Your task to perform on an android device: turn off location history Image 0: 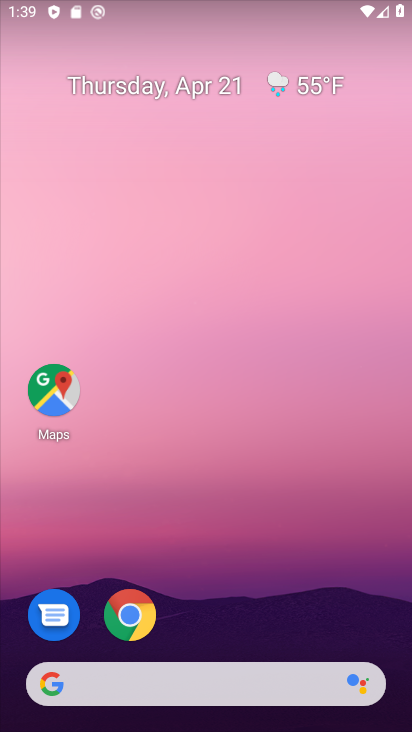
Step 0: click (241, 332)
Your task to perform on an android device: turn off location history Image 1: 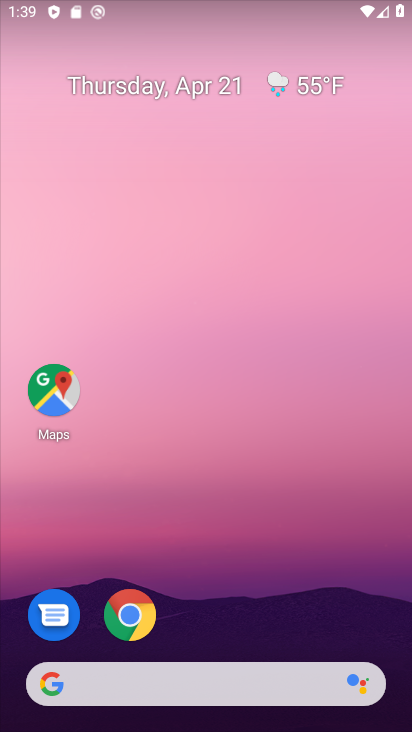
Step 1: drag from (235, 580) to (237, 312)
Your task to perform on an android device: turn off location history Image 2: 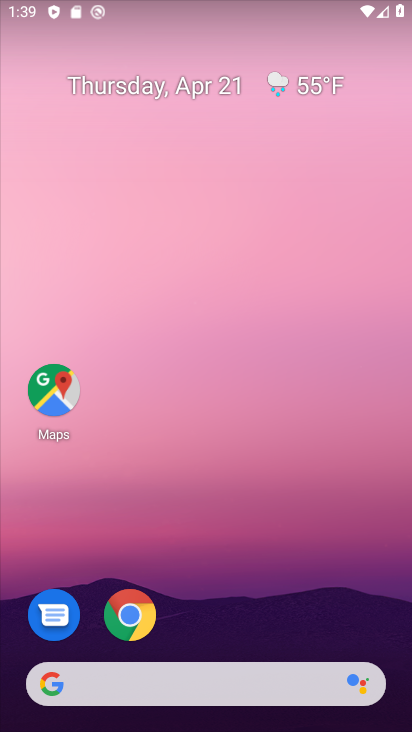
Step 2: drag from (182, 658) to (189, 314)
Your task to perform on an android device: turn off location history Image 3: 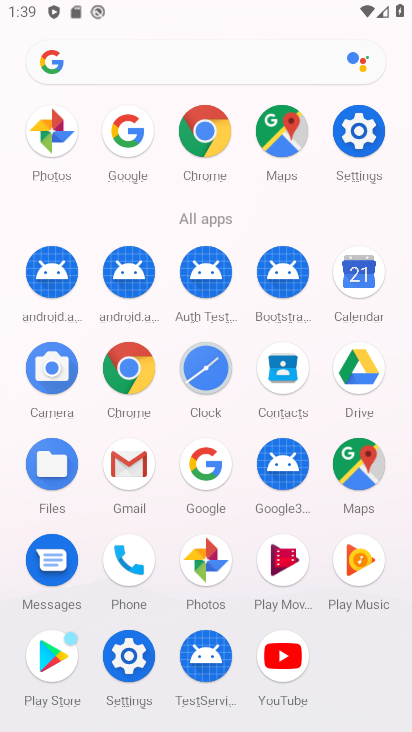
Step 3: click (357, 145)
Your task to perform on an android device: turn off location history Image 4: 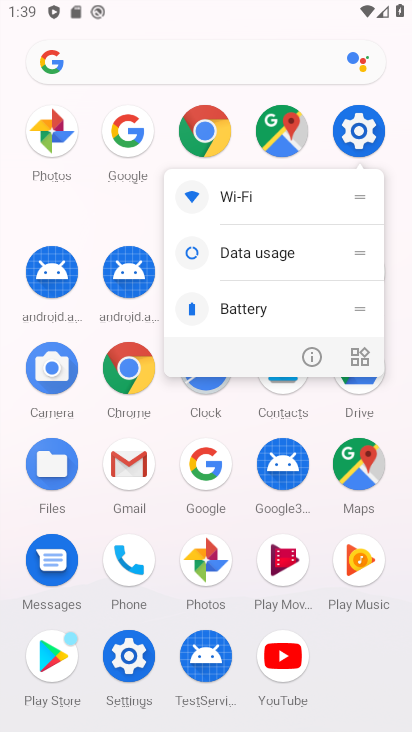
Step 4: click (362, 137)
Your task to perform on an android device: turn off location history Image 5: 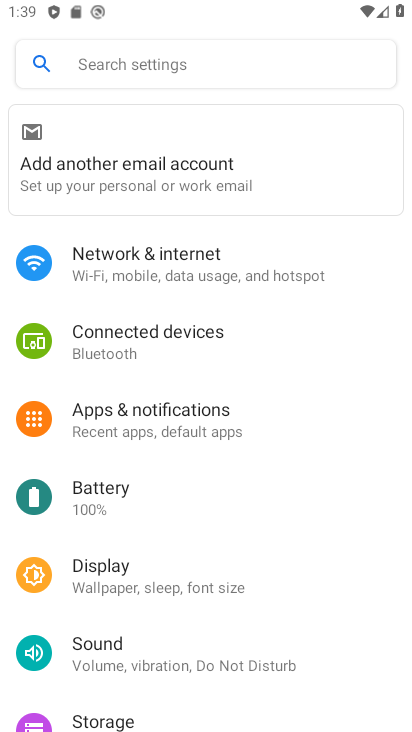
Step 5: drag from (143, 680) to (177, 303)
Your task to perform on an android device: turn off location history Image 6: 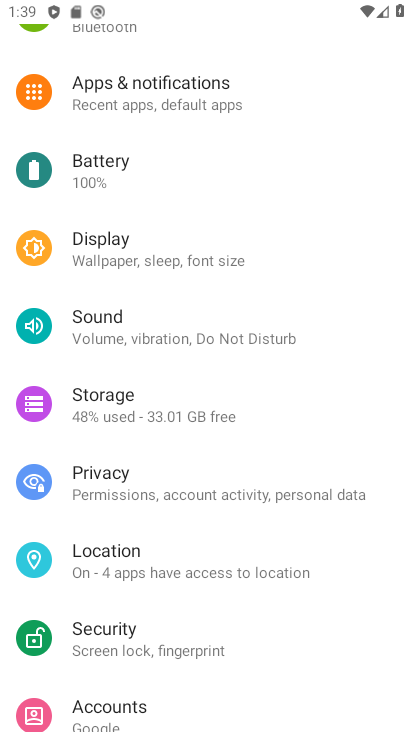
Step 6: click (155, 568)
Your task to perform on an android device: turn off location history Image 7: 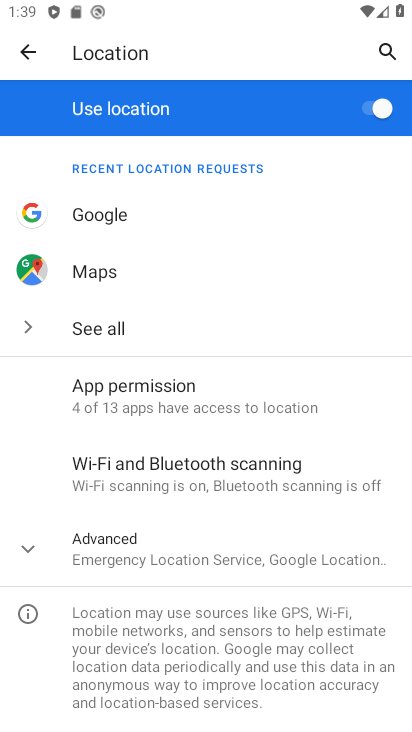
Step 7: click (124, 540)
Your task to perform on an android device: turn off location history Image 8: 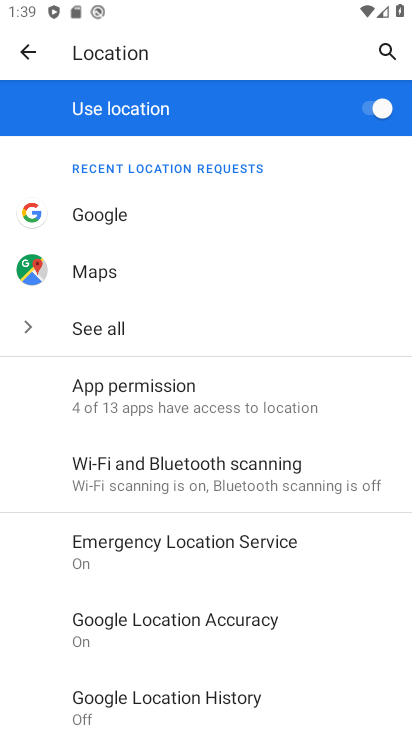
Step 8: click (197, 705)
Your task to perform on an android device: turn off location history Image 9: 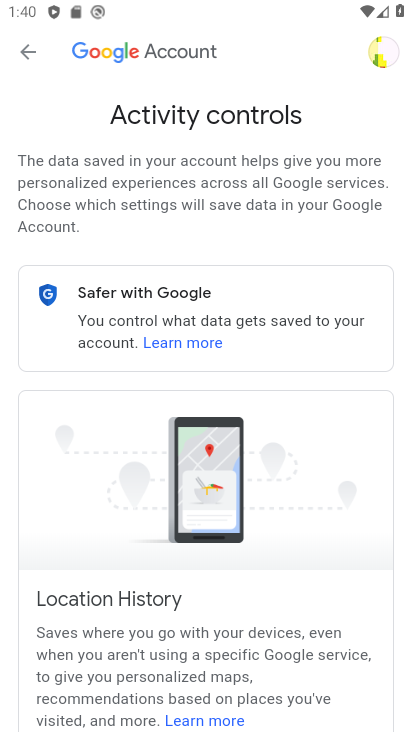
Step 9: drag from (210, 702) to (254, 335)
Your task to perform on an android device: turn off location history Image 10: 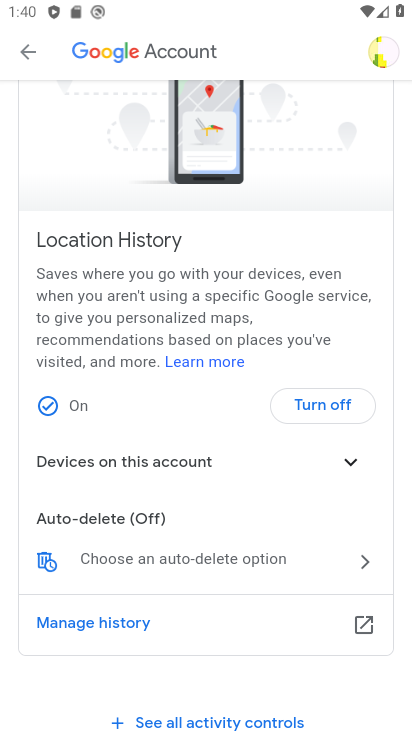
Step 10: click (311, 406)
Your task to perform on an android device: turn off location history Image 11: 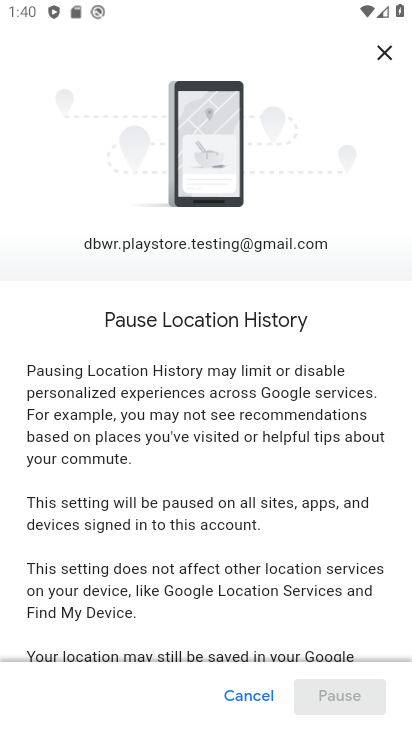
Step 11: drag from (257, 627) to (292, 227)
Your task to perform on an android device: turn off location history Image 12: 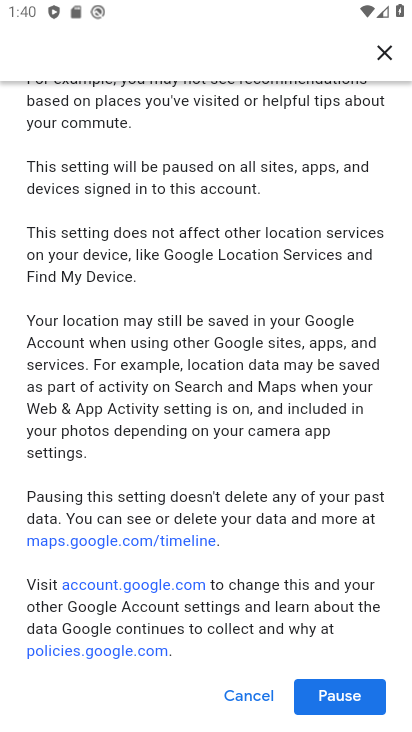
Step 12: click (344, 701)
Your task to perform on an android device: turn off location history Image 13: 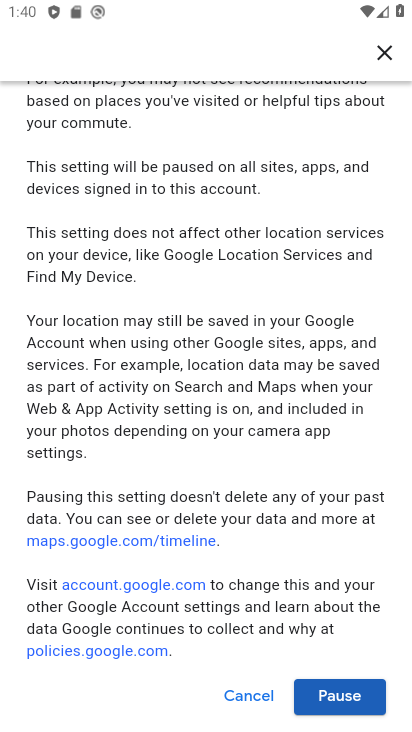
Step 13: click (335, 698)
Your task to perform on an android device: turn off location history Image 14: 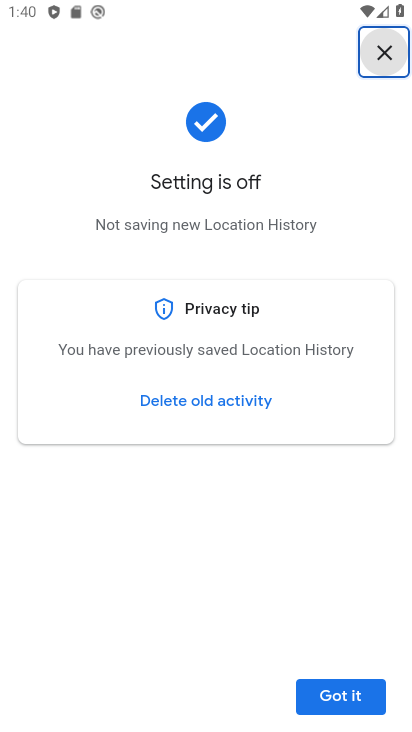
Step 14: click (335, 698)
Your task to perform on an android device: turn off location history Image 15: 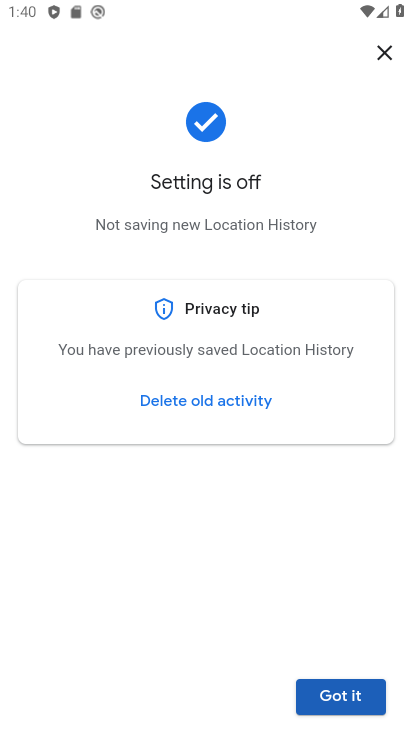
Step 15: click (335, 698)
Your task to perform on an android device: turn off location history Image 16: 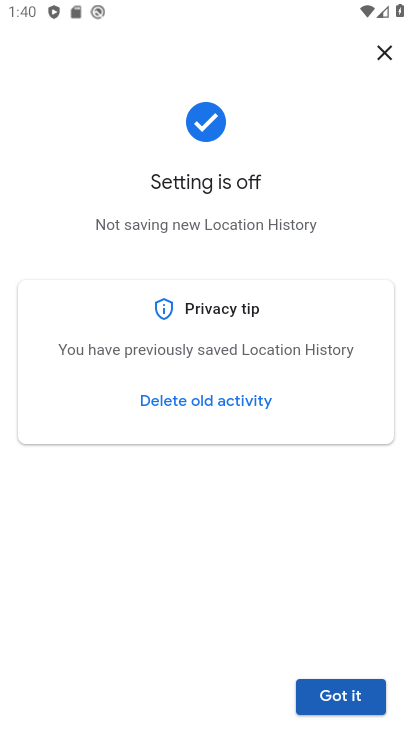
Step 16: click (340, 693)
Your task to perform on an android device: turn off location history Image 17: 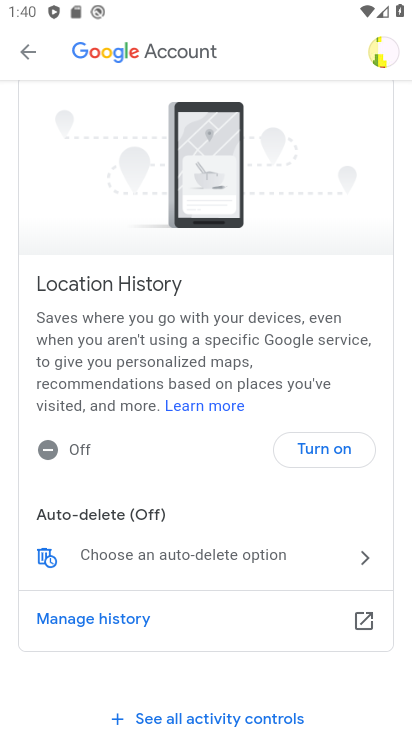
Step 17: task complete